Your task to perform on an android device: uninstall "PlayWell" Image 0: 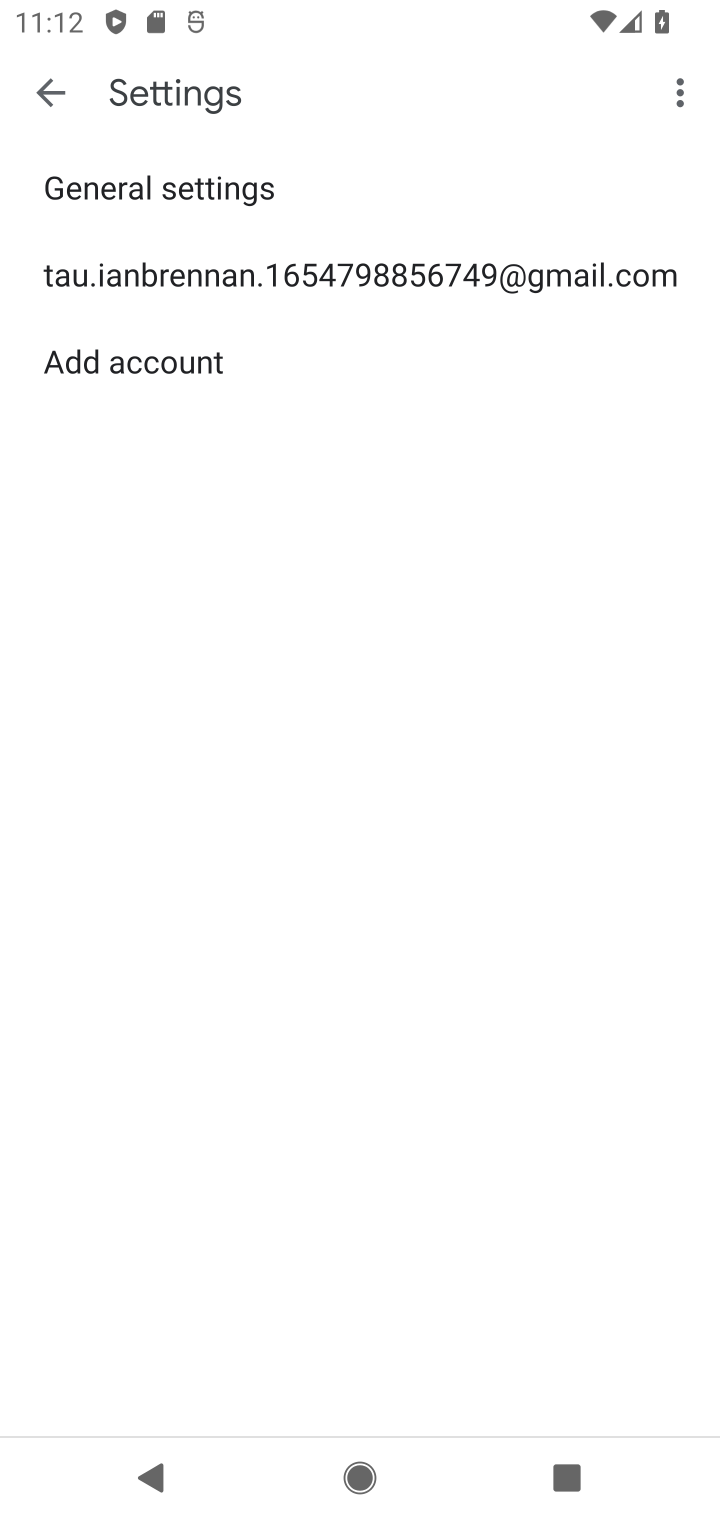
Step 0: press home button
Your task to perform on an android device: uninstall "PlayWell" Image 1: 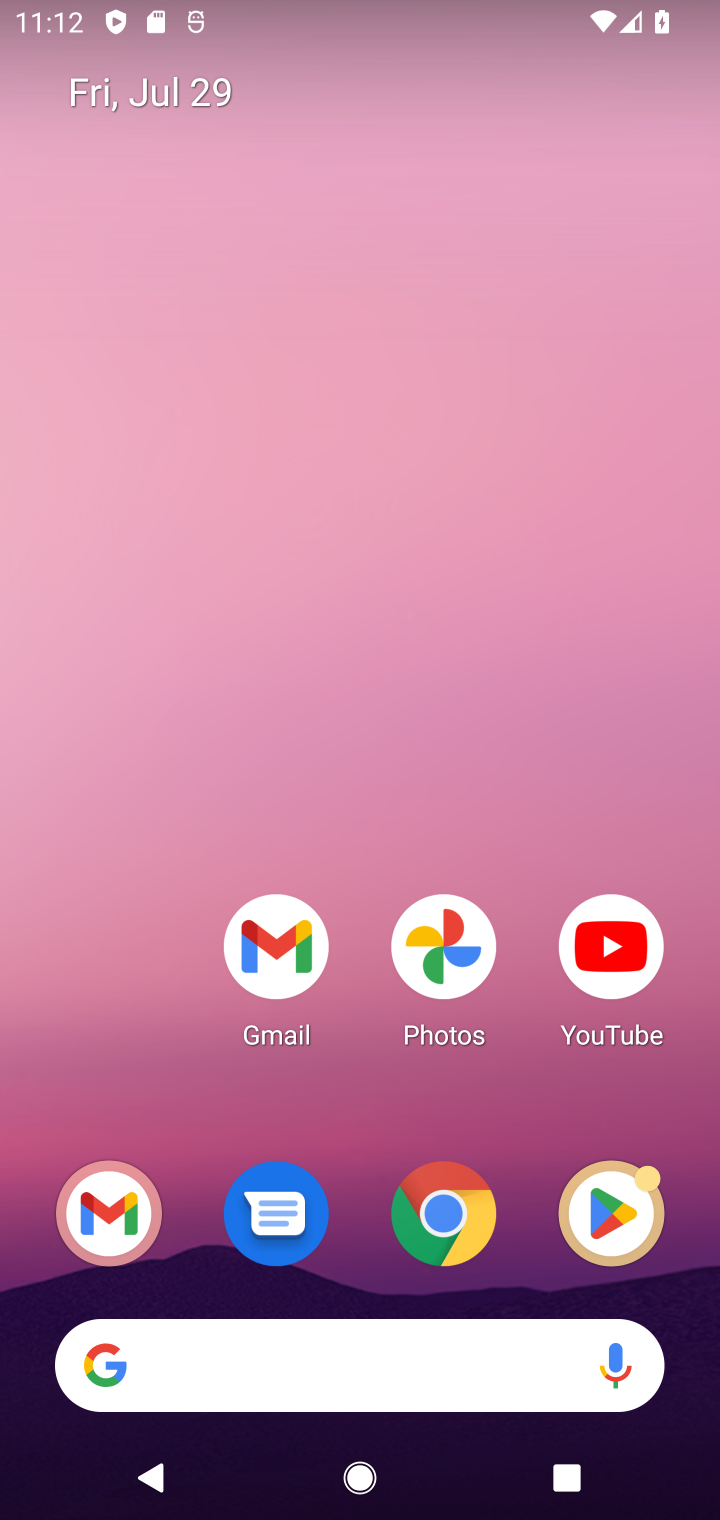
Step 1: click (621, 1204)
Your task to perform on an android device: uninstall "PlayWell" Image 2: 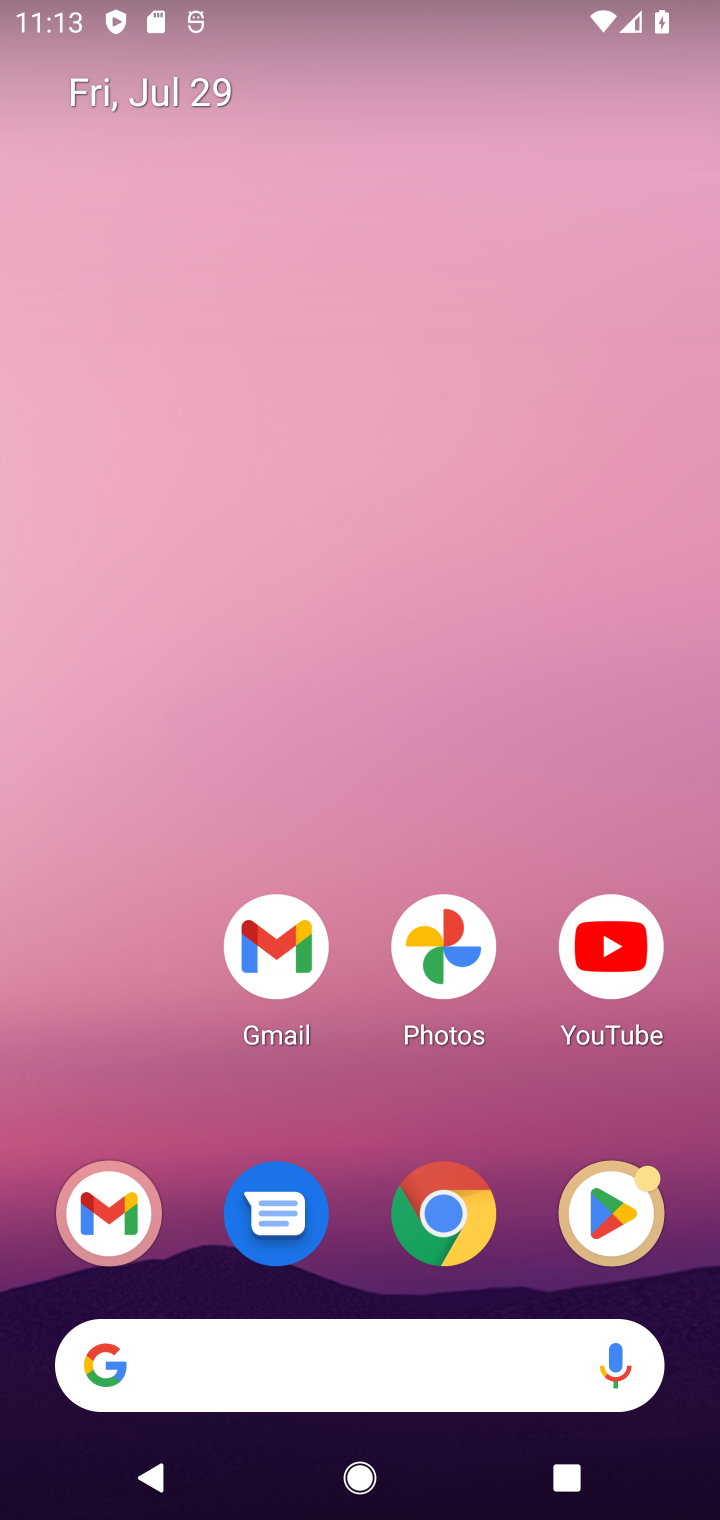
Step 2: click (621, 1206)
Your task to perform on an android device: uninstall "PlayWell" Image 3: 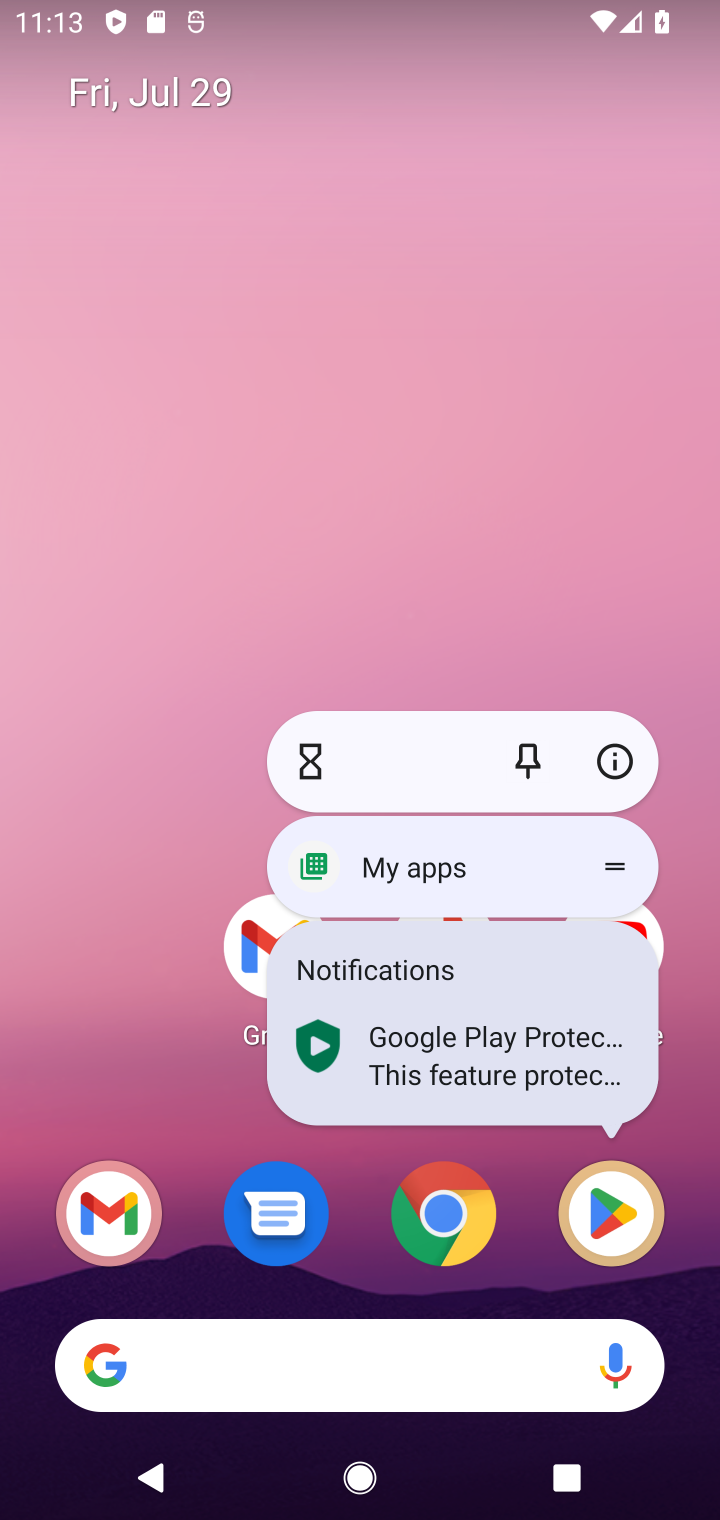
Step 3: click (621, 1206)
Your task to perform on an android device: uninstall "PlayWell" Image 4: 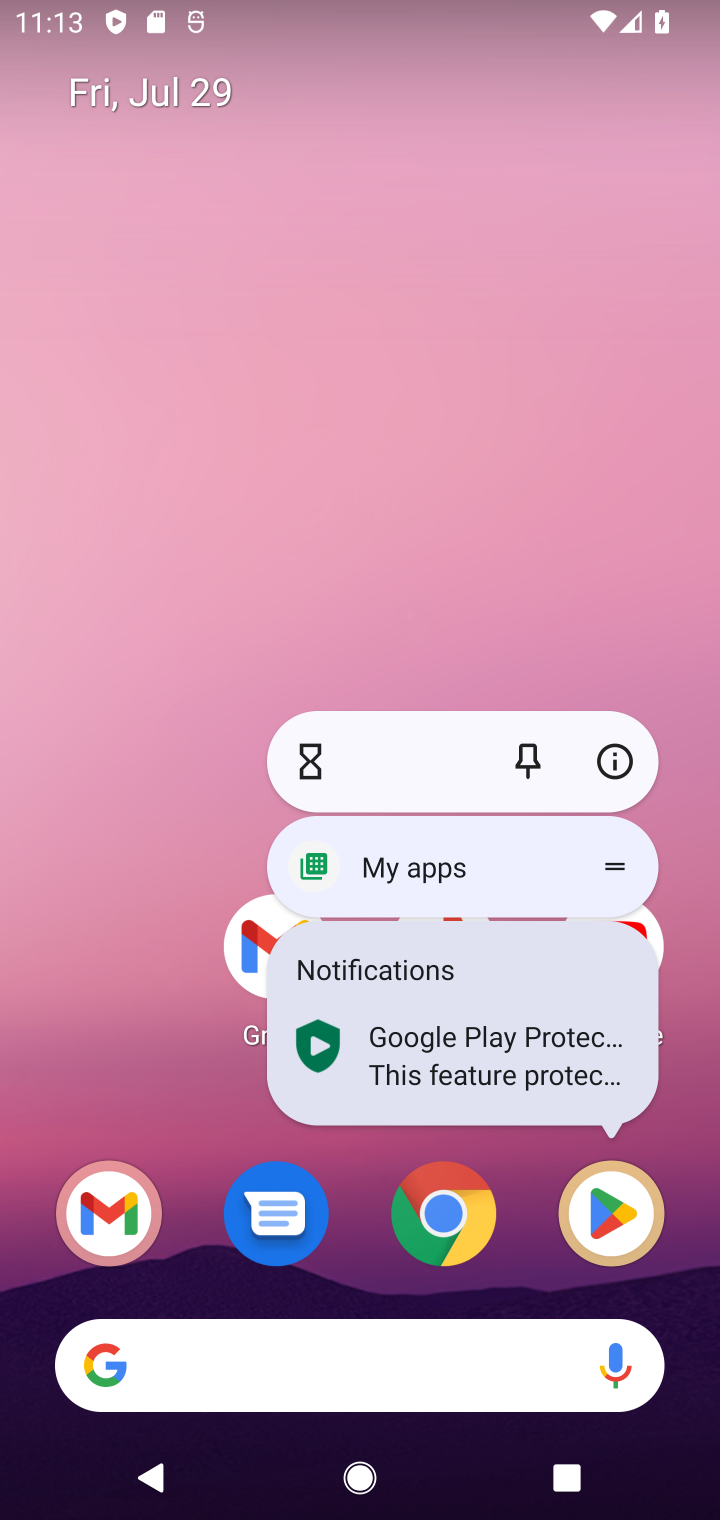
Step 4: click (621, 1206)
Your task to perform on an android device: uninstall "PlayWell" Image 5: 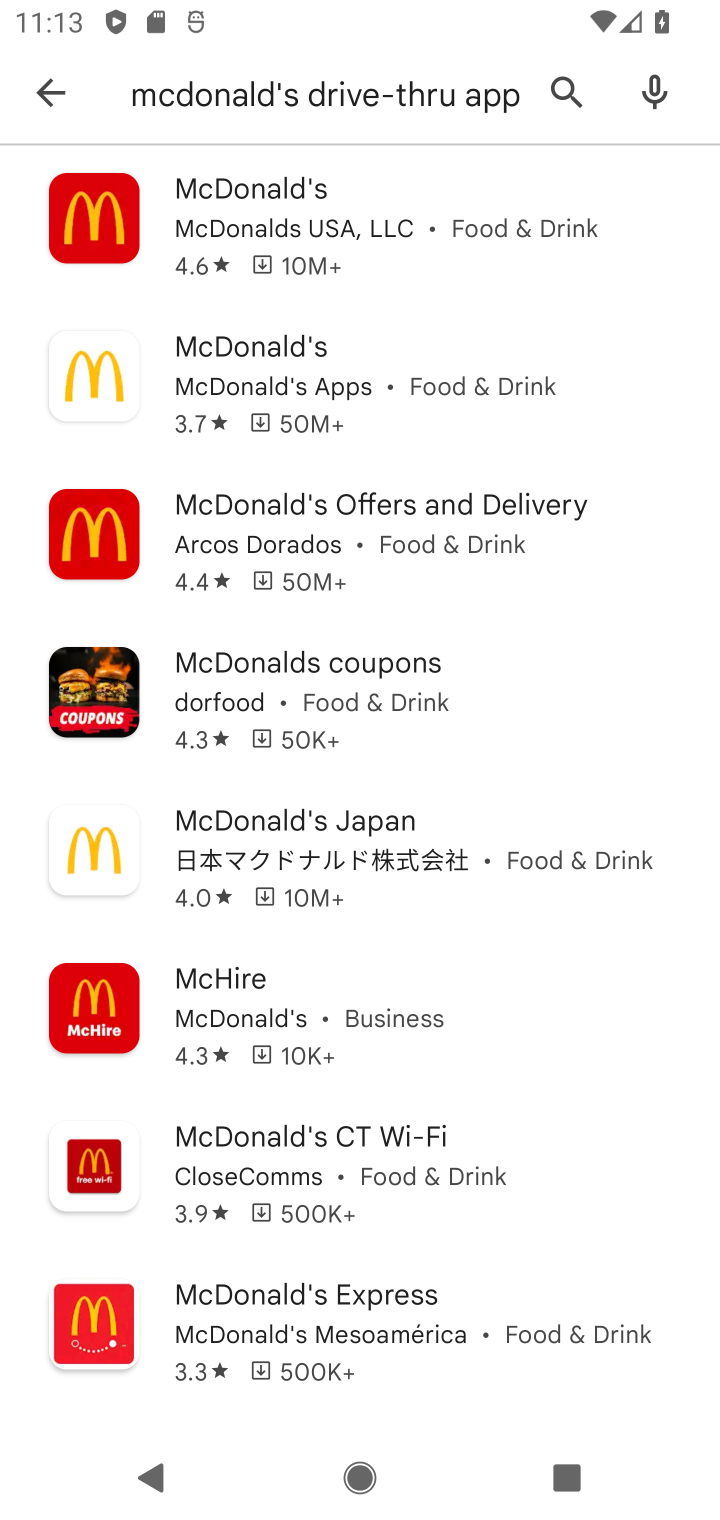
Step 5: click (559, 89)
Your task to perform on an android device: uninstall "PlayWell" Image 6: 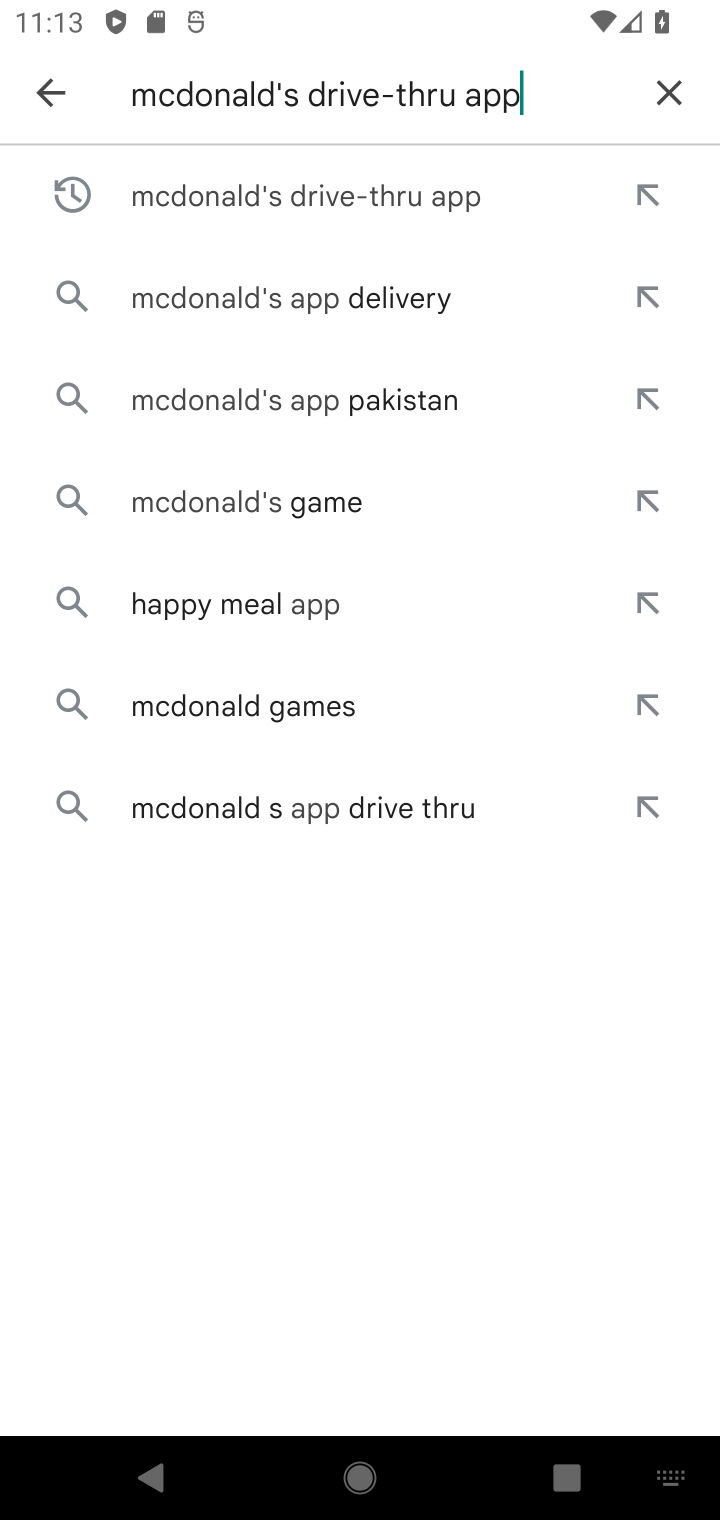
Step 6: click (674, 77)
Your task to perform on an android device: uninstall "PlayWell" Image 7: 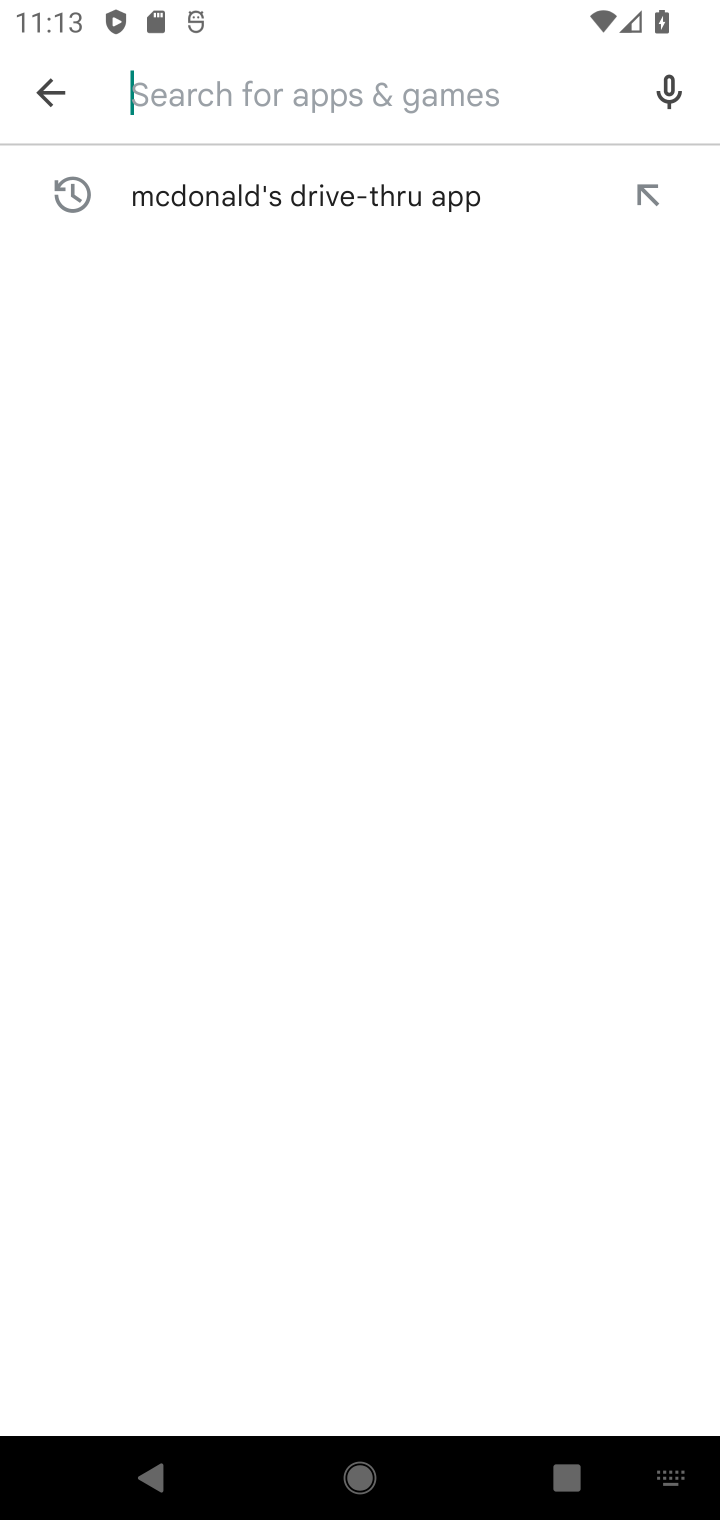
Step 7: type "PlayWell"
Your task to perform on an android device: uninstall "PlayWell" Image 8: 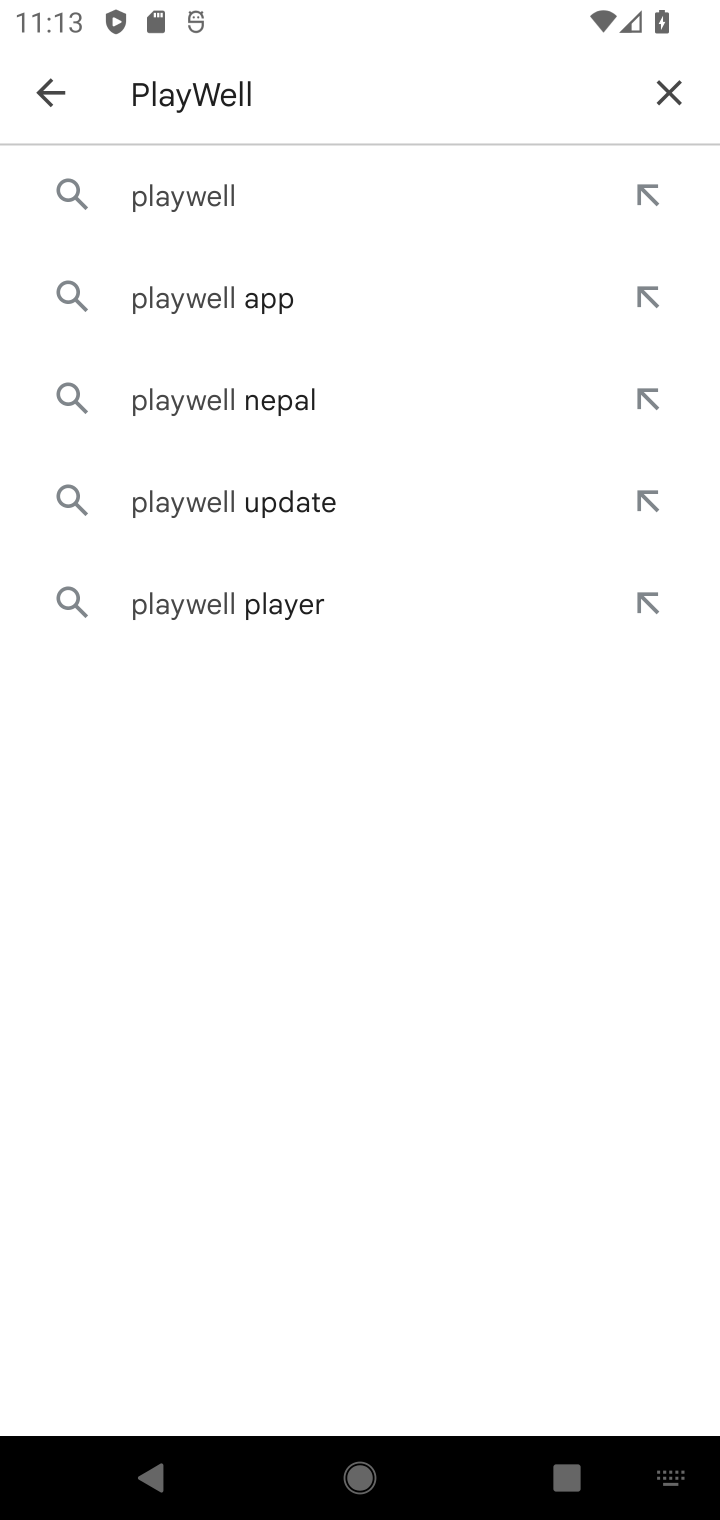
Step 8: click (199, 184)
Your task to perform on an android device: uninstall "PlayWell" Image 9: 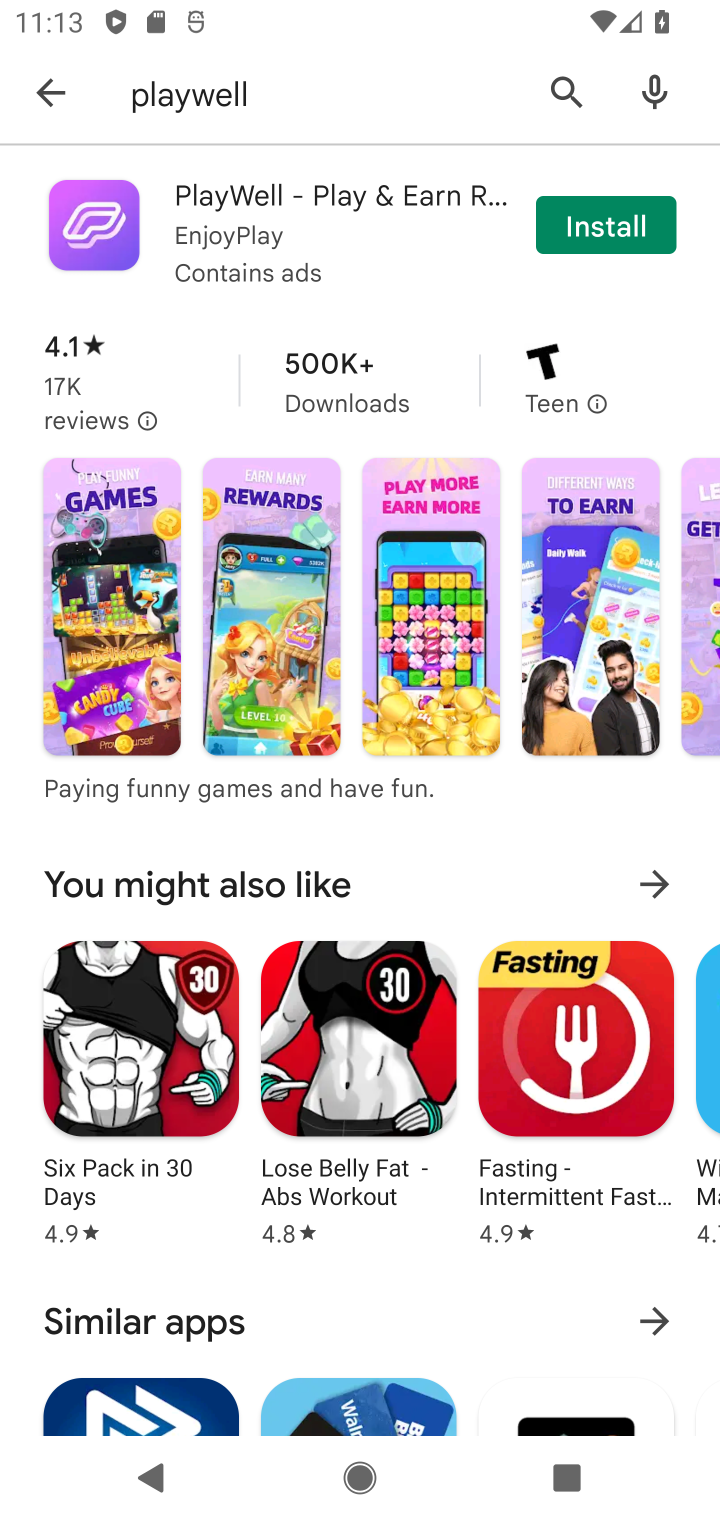
Step 9: click (273, 204)
Your task to perform on an android device: uninstall "PlayWell" Image 10: 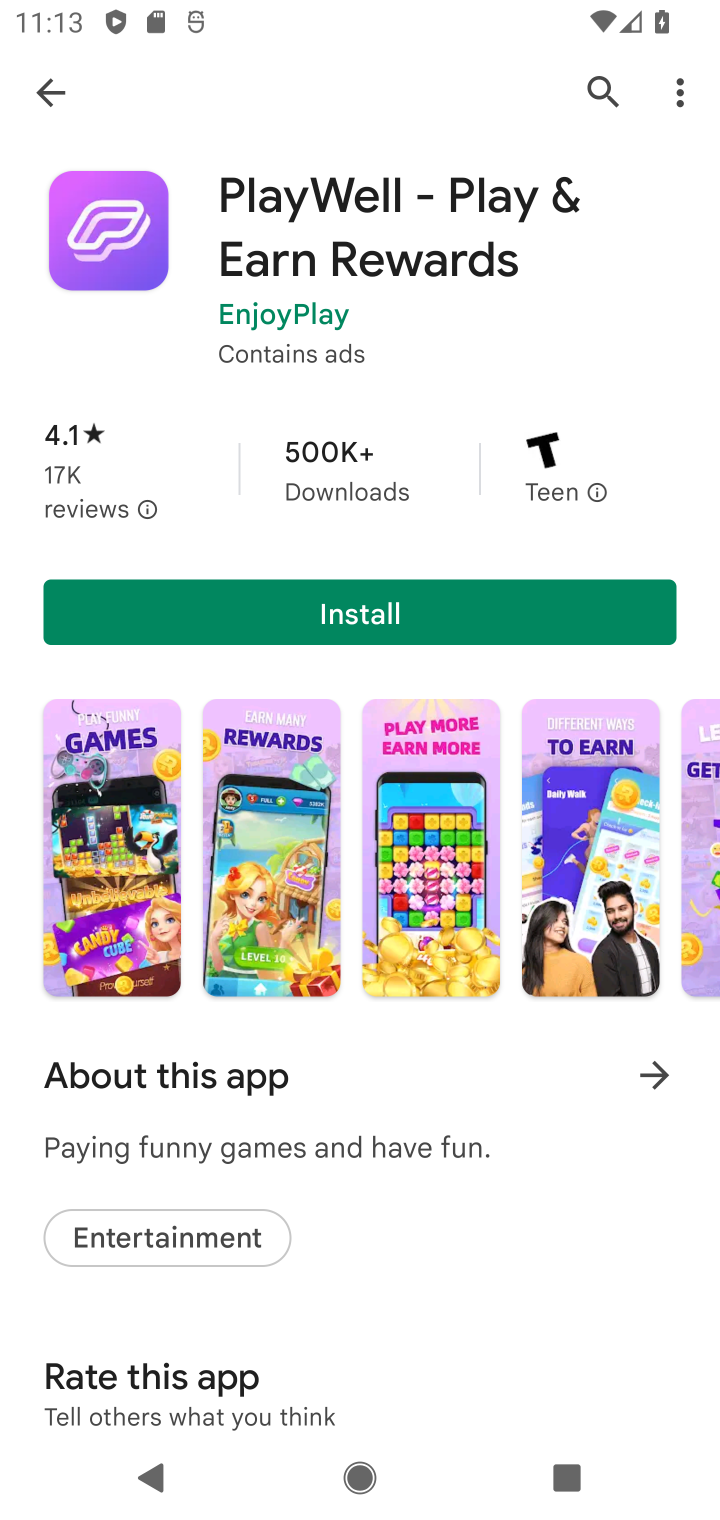
Step 10: task complete